Your task to perform on an android device: Search for panasonic triple a on bestbuy.com, select the first entry, add it to the cart, then select checkout. Image 0: 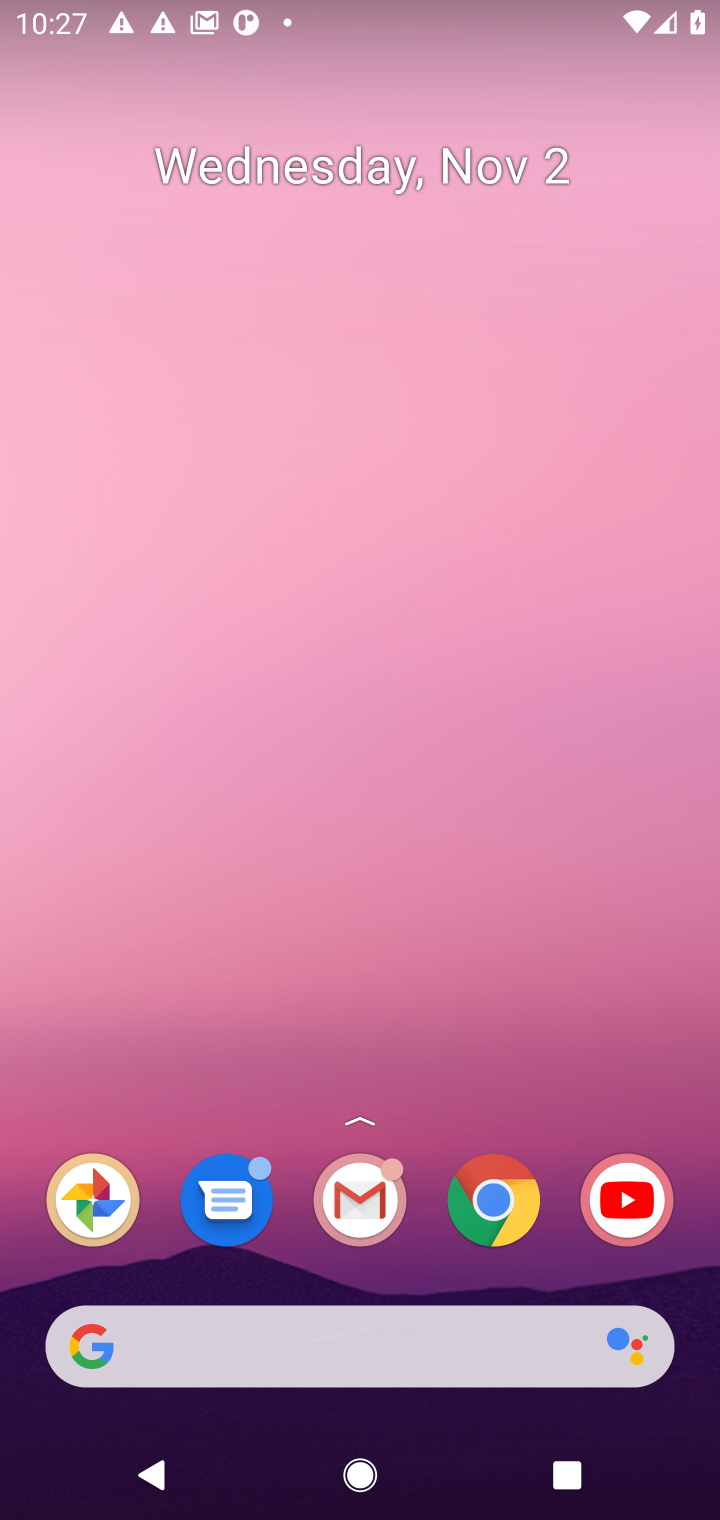
Step 0: click (500, 1188)
Your task to perform on an android device: Search for panasonic triple a on bestbuy.com, select the first entry, add it to the cart, then select checkout. Image 1: 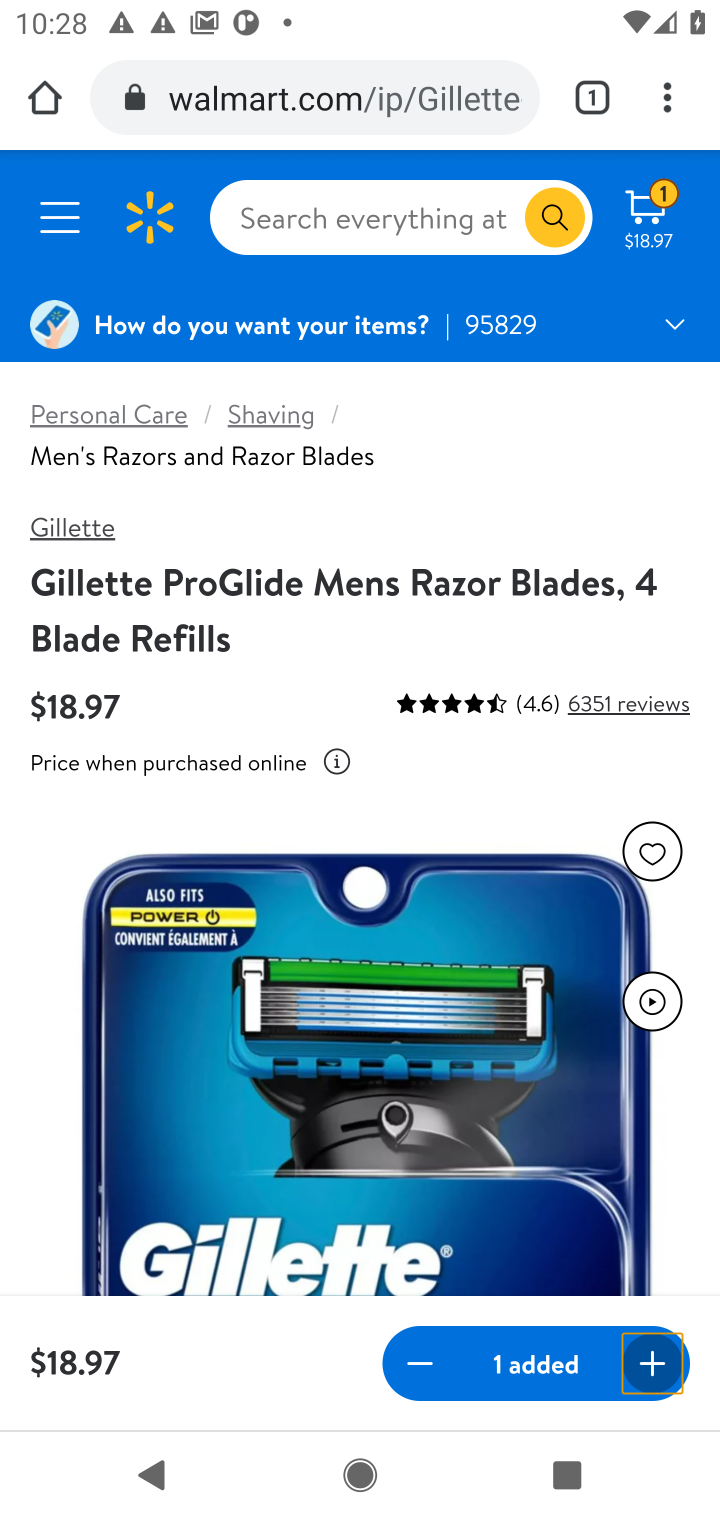
Step 1: click (373, 100)
Your task to perform on an android device: Search for panasonic triple a on bestbuy.com, select the first entry, add it to the cart, then select checkout. Image 2: 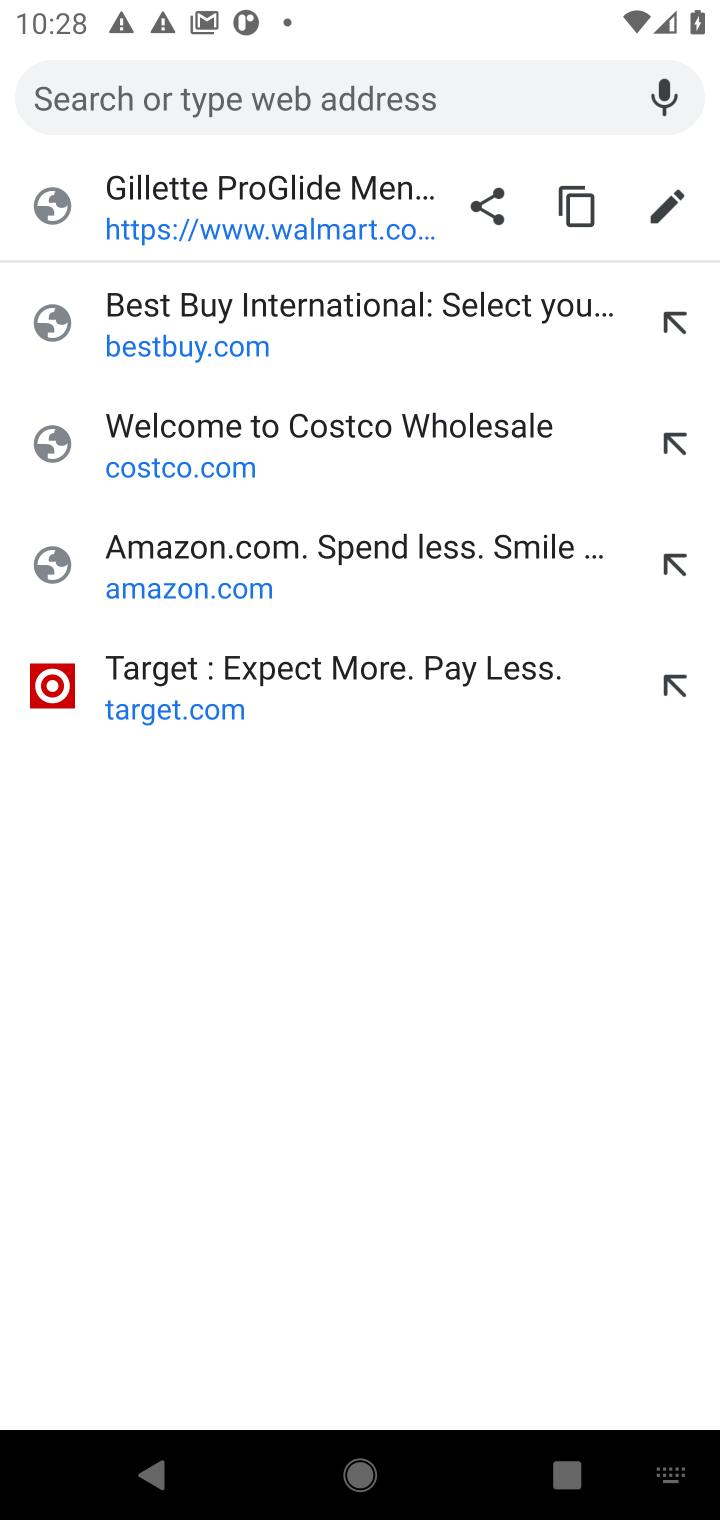
Step 2: click (263, 329)
Your task to perform on an android device: Search for panasonic triple a on bestbuy.com, select the first entry, add it to the cart, then select checkout. Image 3: 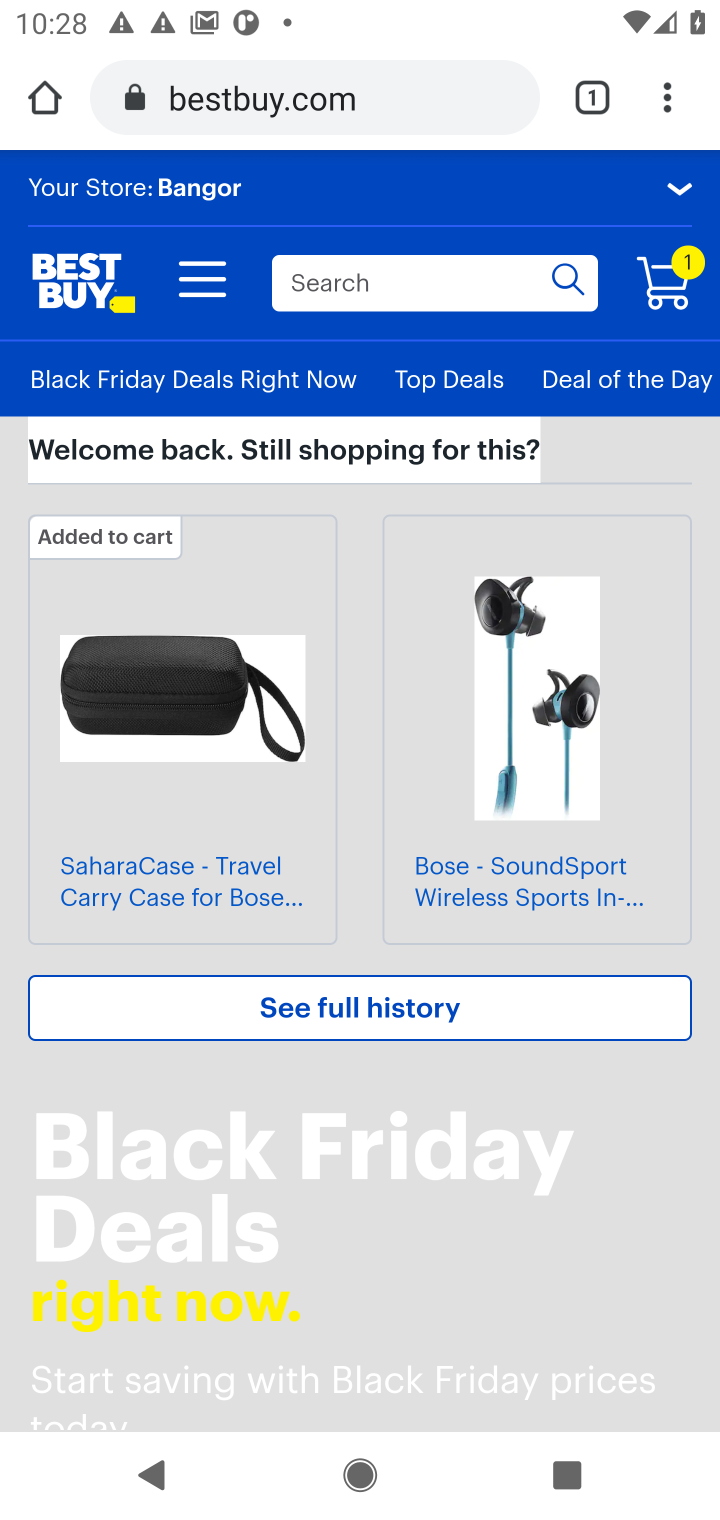
Step 3: click (423, 292)
Your task to perform on an android device: Search for panasonic triple a on bestbuy.com, select the first entry, add it to the cart, then select checkout. Image 4: 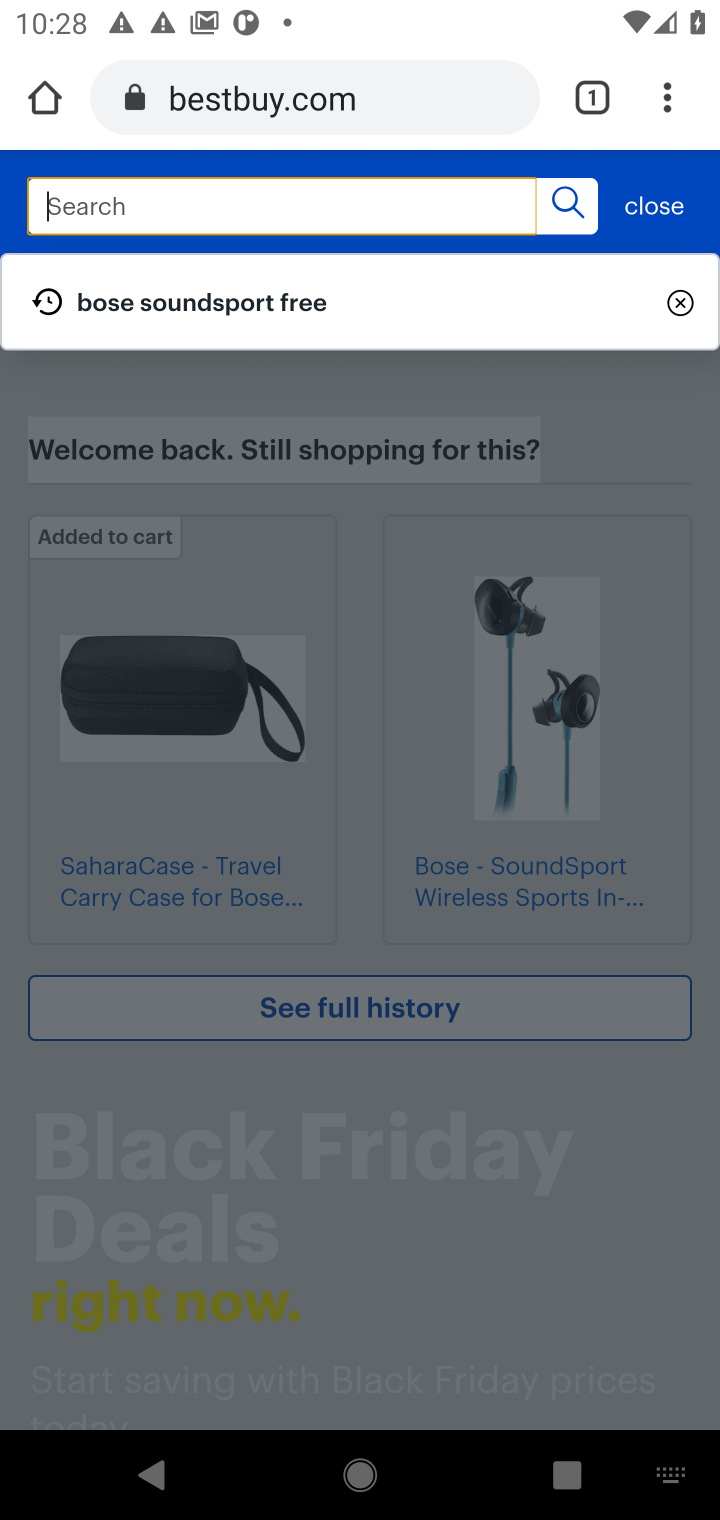
Step 4: type "panasonic triple a"
Your task to perform on an android device: Search for panasonic triple a on bestbuy.com, select the first entry, add it to the cart, then select checkout. Image 5: 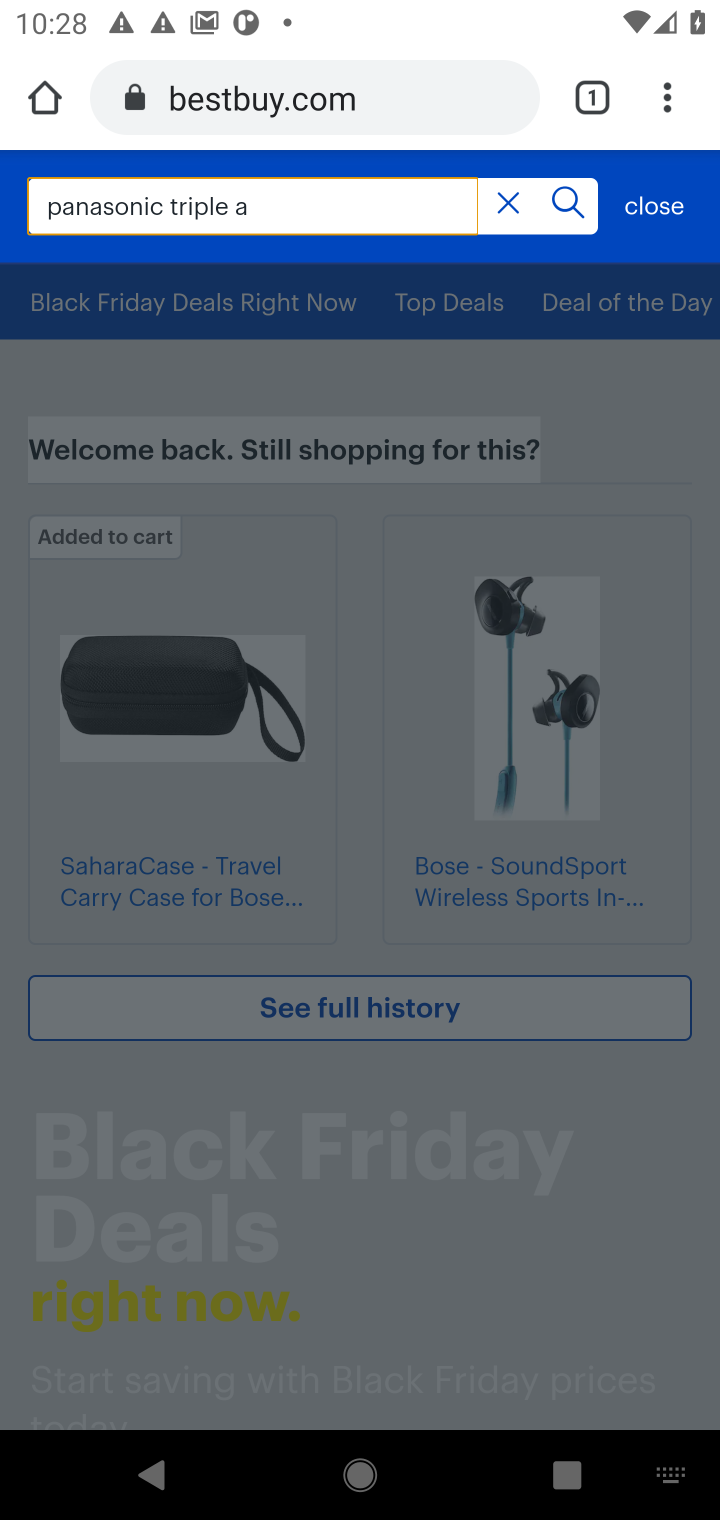
Step 5: click (613, 415)
Your task to perform on an android device: Search for panasonic triple a on bestbuy.com, select the first entry, add it to the cart, then select checkout. Image 6: 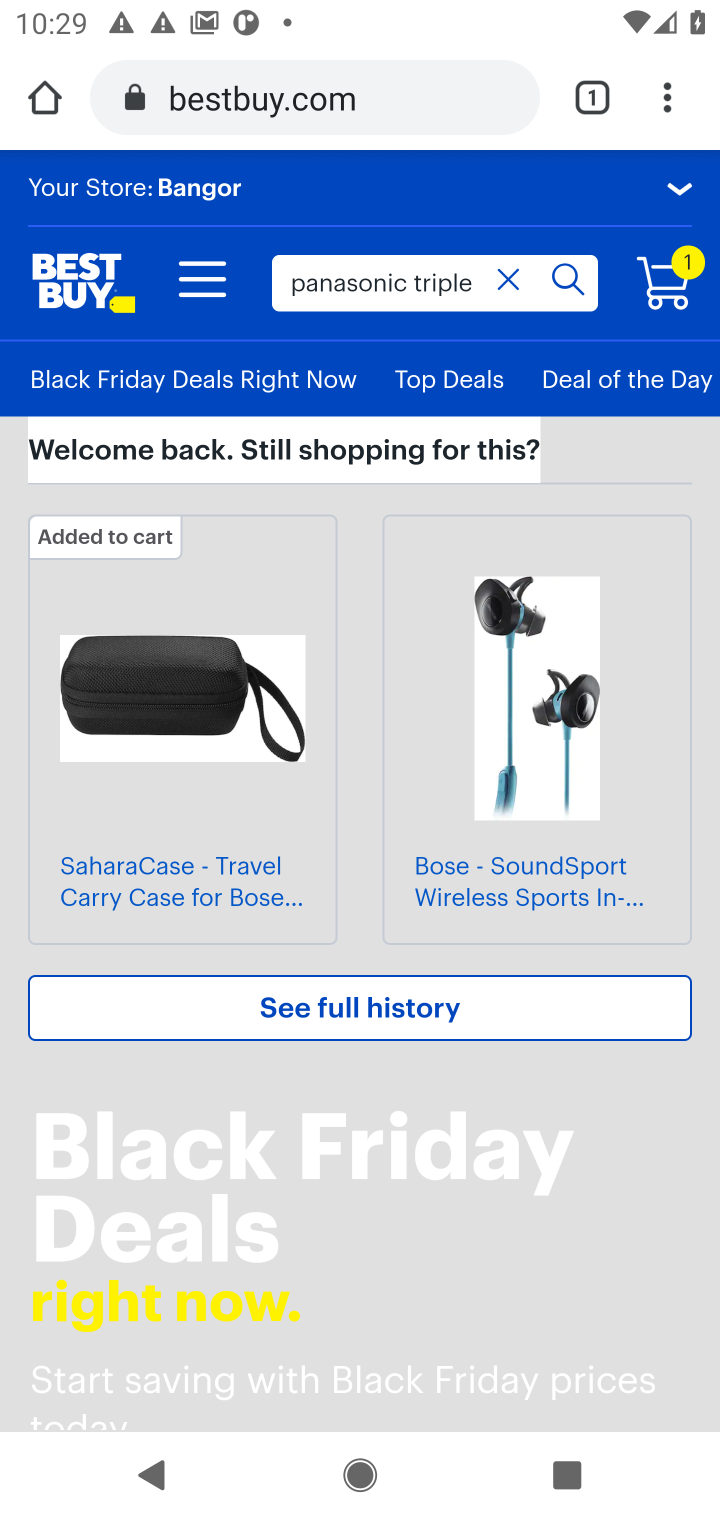
Step 6: click (212, 688)
Your task to perform on an android device: Search for panasonic triple a on bestbuy.com, select the first entry, add it to the cart, then select checkout. Image 7: 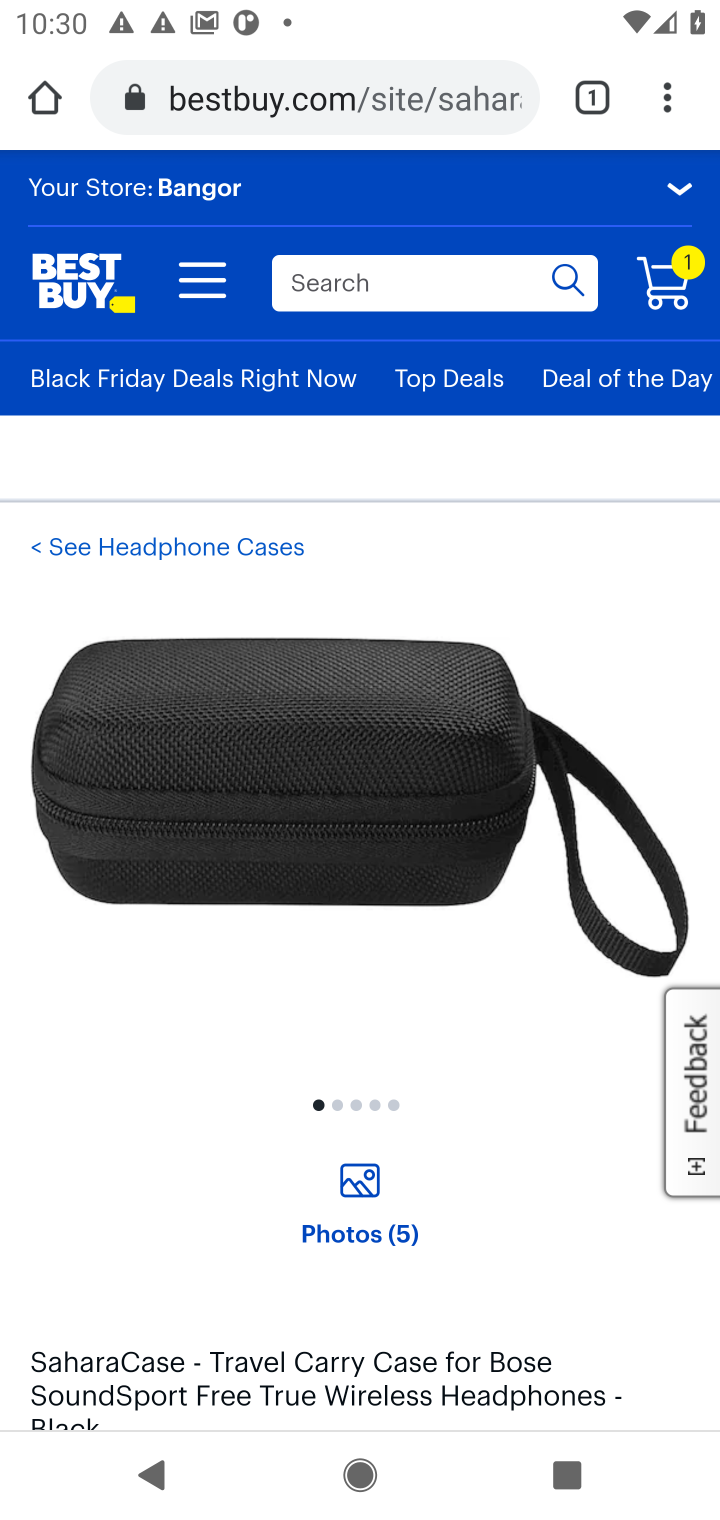
Step 7: task complete